Your task to perform on an android device: delete the emails in spam in the gmail app Image 0: 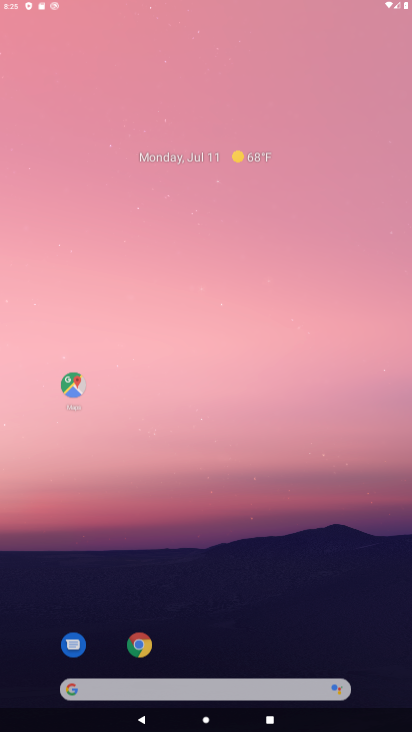
Step 0: click (189, 246)
Your task to perform on an android device: delete the emails in spam in the gmail app Image 1: 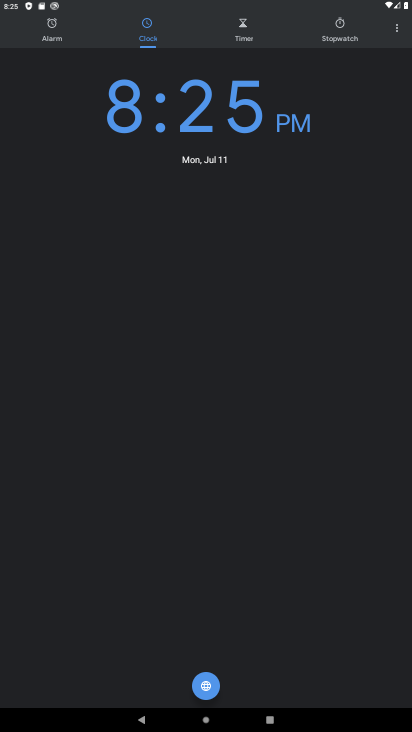
Step 1: press back button
Your task to perform on an android device: delete the emails in spam in the gmail app Image 2: 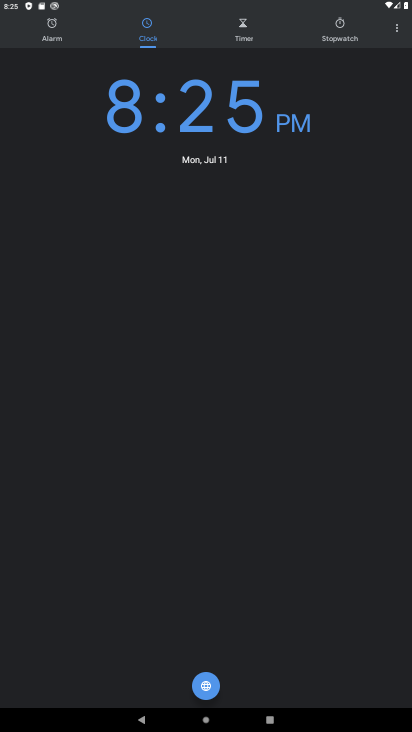
Step 2: press back button
Your task to perform on an android device: delete the emails in spam in the gmail app Image 3: 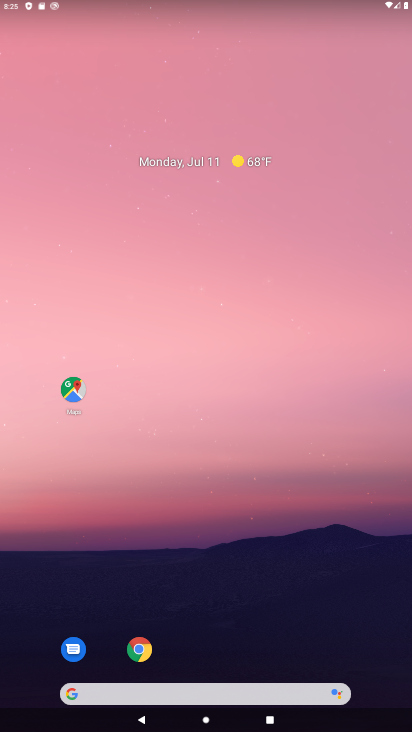
Step 3: press back button
Your task to perform on an android device: delete the emails in spam in the gmail app Image 4: 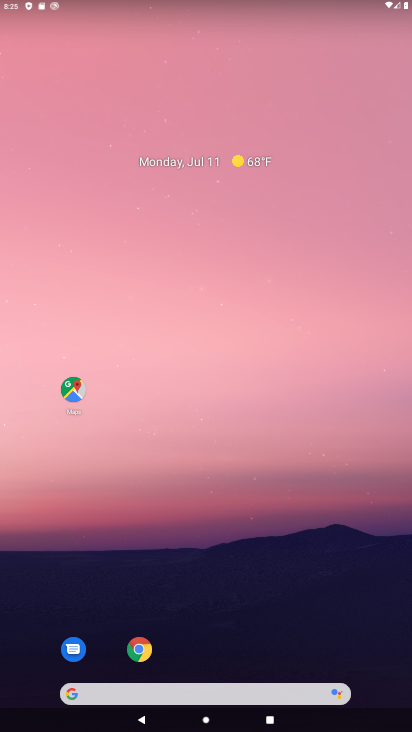
Step 4: press home button
Your task to perform on an android device: delete the emails in spam in the gmail app Image 5: 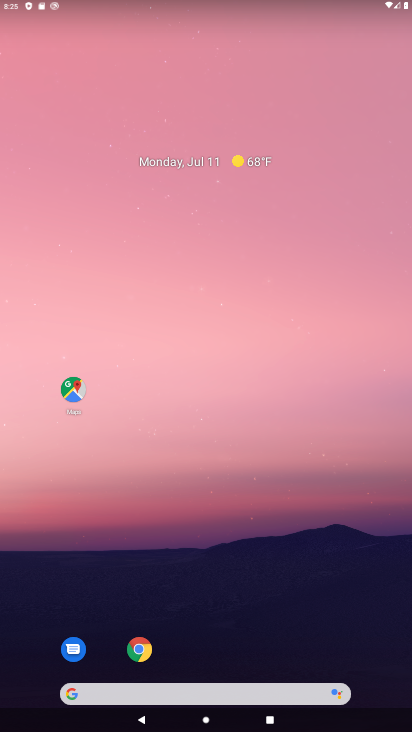
Step 5: click (240, 118)
Your task to perform on an android device: delete the emails in spam in the gmail app Image 6: 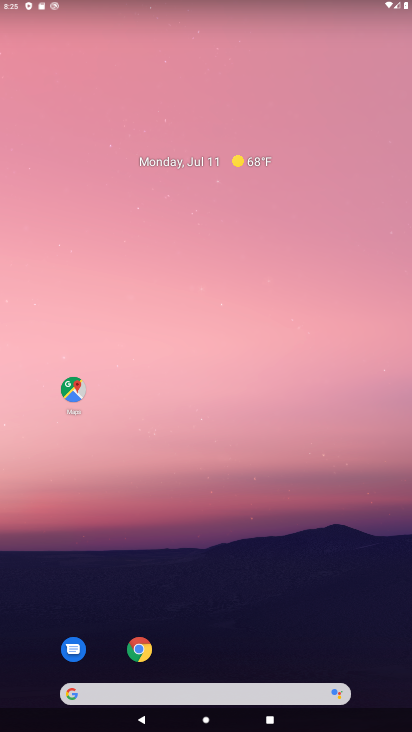
Step 6: drag from (259, 539) to (202, 203)
Your task to perform on an android device: delete the emails in spam in the gmail app Image 7: 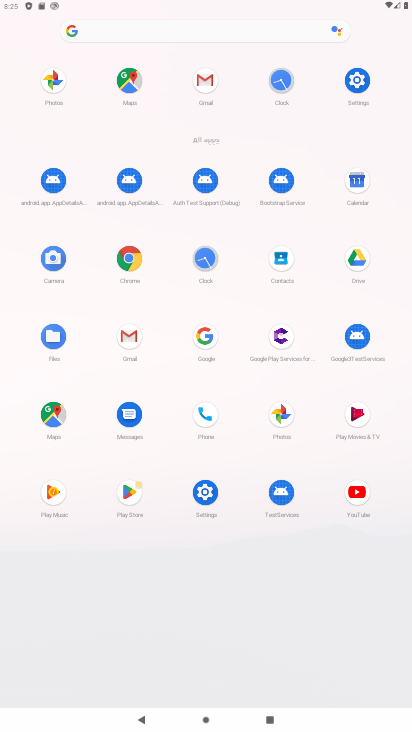
Step 7: click (119, 337)
Your task to perform on an android device: delete the emails in spam in the gmail app Image 8: 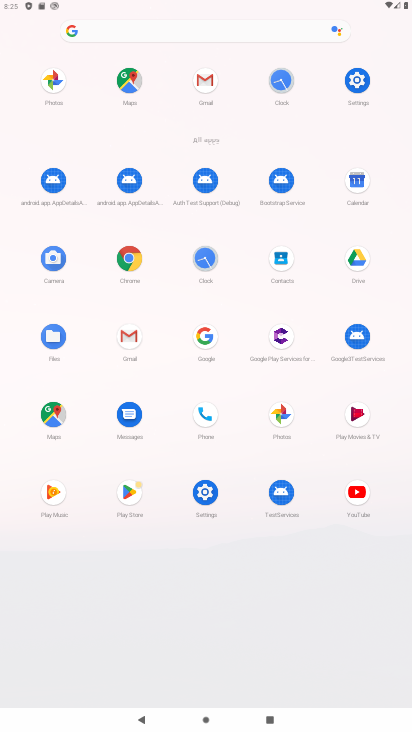
Step 8: click (119, 337)
Your task to perform on an android device: delete the emails in spam in the gmail app Image 9: 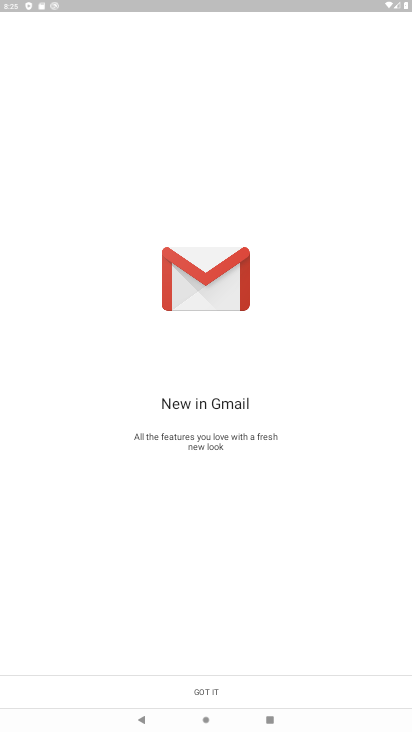
Step 9: click (231, 697)
Your task to perform on an android device: delete the emails in spam in the gmail app Image 10: 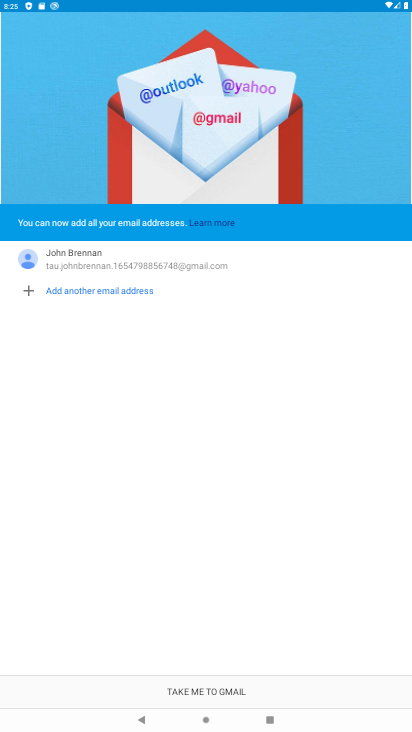
Step 10: click (219, 689)
Your task to perform on an android device: delete the emails in spam in the gmail app Image 11: 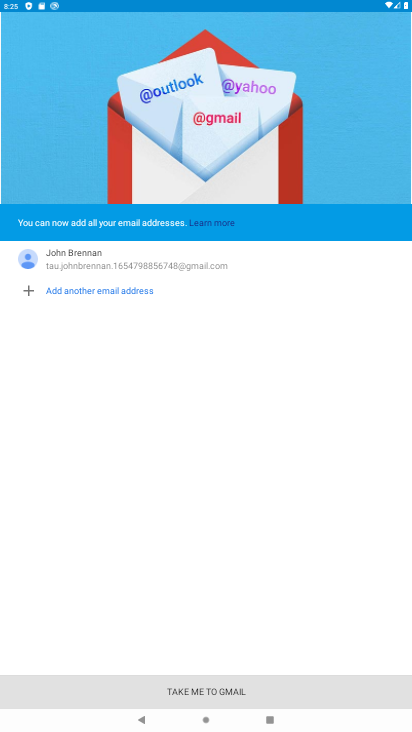
Step 11: click (218, 688)
Your task to perform on an android device: delete the emails in spam in the gmail app Image 12: 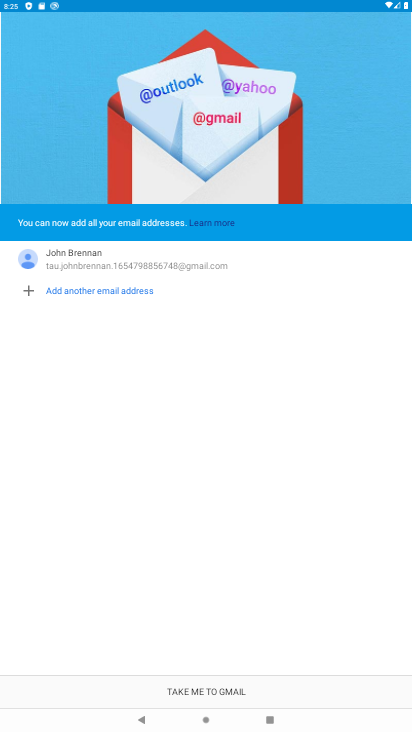
Step 12: click (218, 688)
Your task to perform on an android device: delete the emails in spam in the gmail app Image 13: 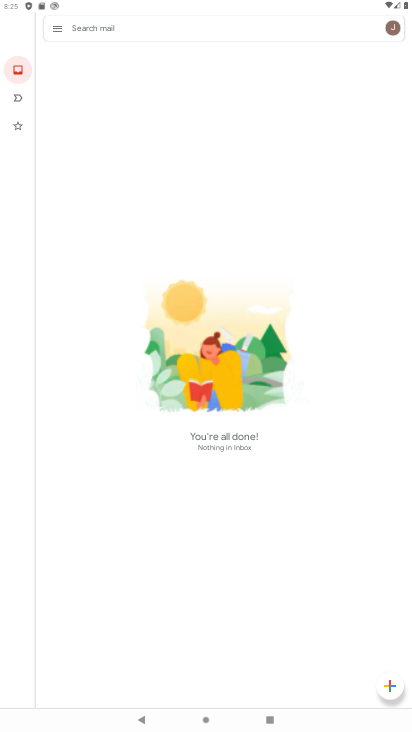
Step 13: click (59, 24)
Your task to perform on an android device: delete the emails in spam in the gmail app Image 14: 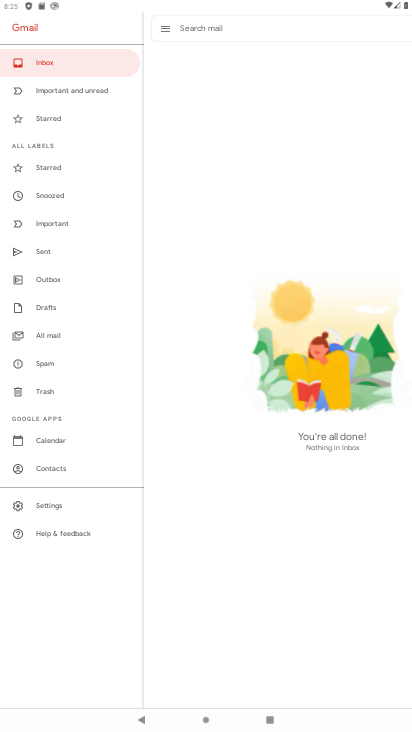
Step 14: click (53, 333)
Your task to perform on an android device: delete the emails in spam in the gmail app Image 15: 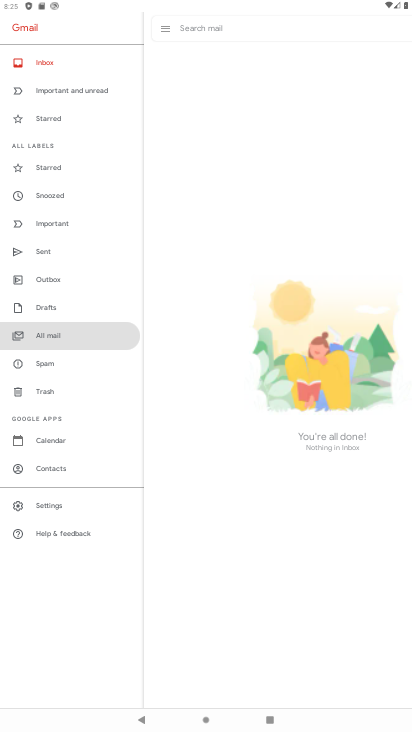
Step 15: click (53, 338)
Your task to perform on an android device: delete the emails in spam in the gmail app Image 16: 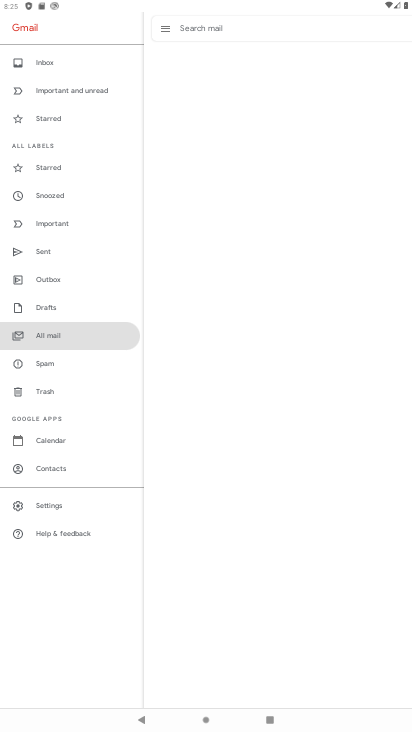
Step 16: click (53, 339)
Your task to perform on an android device: delete the emails in spam in the gmail app Image 17: 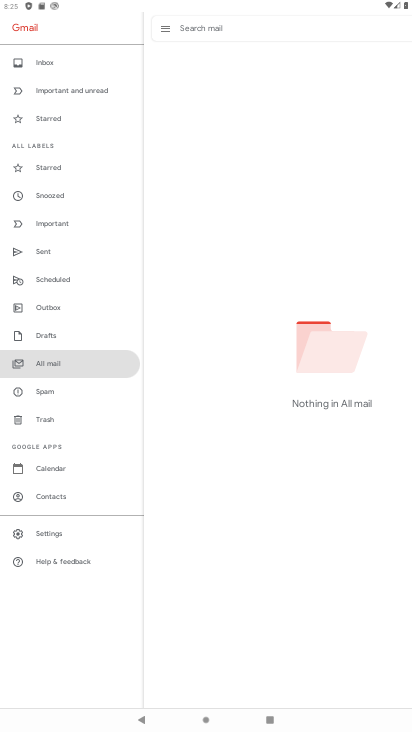
Step 17: task complete